Your task to perform on an android device: Go to network settings Image 0: 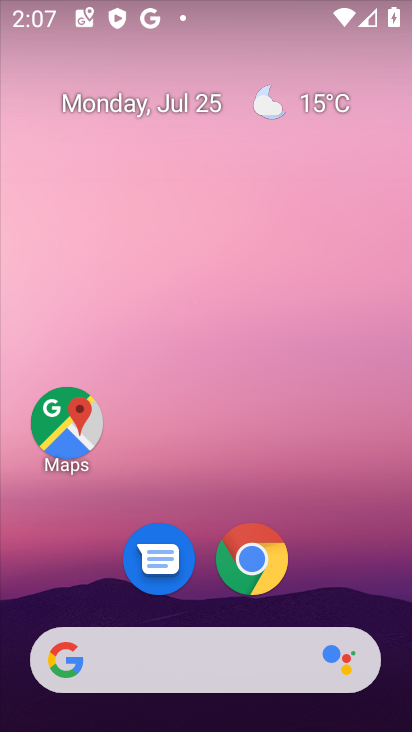
Step 0: drag from (89, 564) to (189, 9)
Your task to perform on an android device: Go to network settings Image 1: 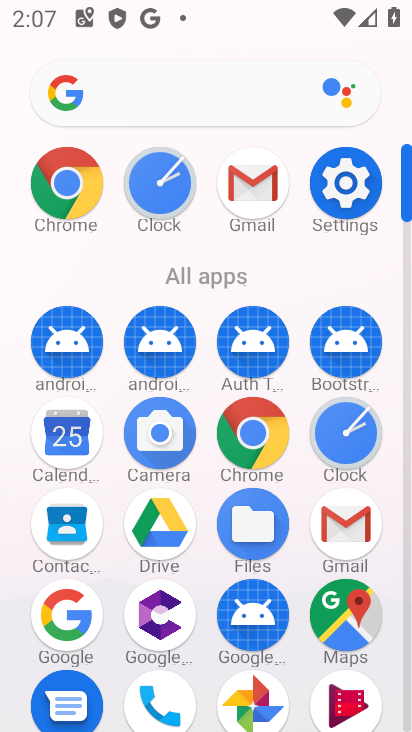
Step 1: click (347, 176)
Your task to perform on an android device: Go to network settings Image 2: 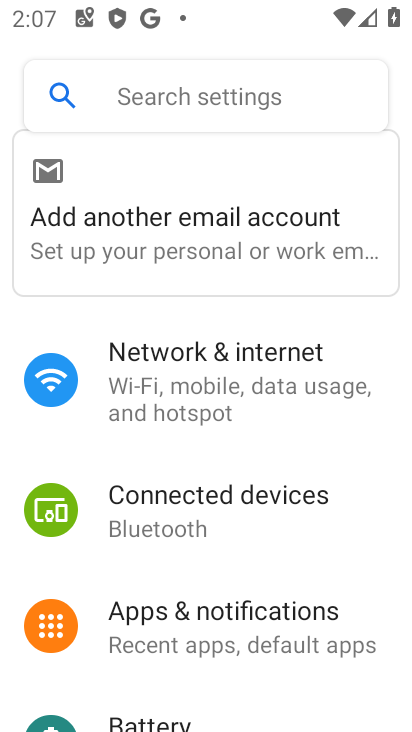
Step 2: click (228, 385)
Your task to perform on an android device: Go to network settings Image 3: 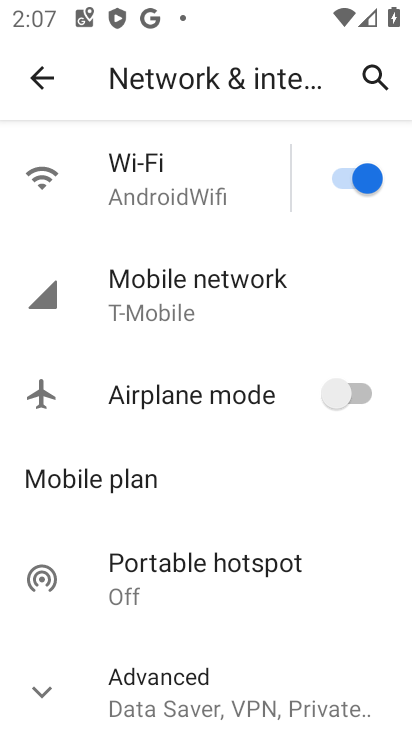
Step 3: task complete